Your task to perform on an android device: read, delete, or share a saved page in the chrome app Image 0: 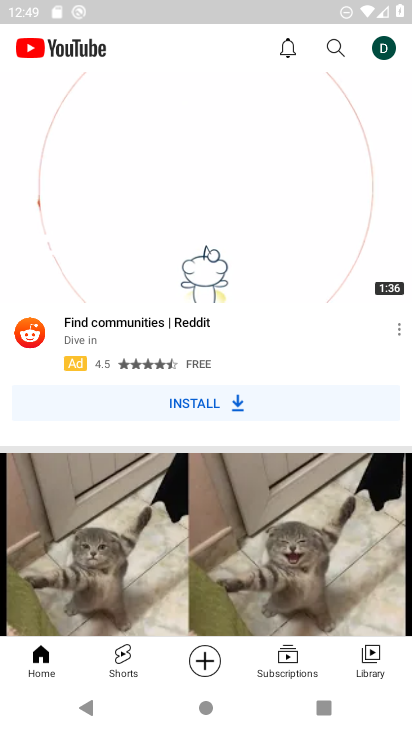
Step 0: press home button
Your task to perform on an android device: read, delete, or share a saved page in the chrome app Image 1: 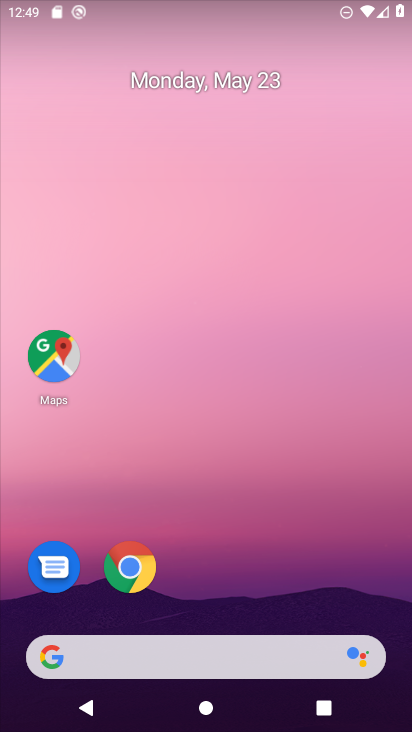
Step 1: click (134, 566)
Your task to perform on an android device: read, delete, or share a saved page in the chrome app Image 2: 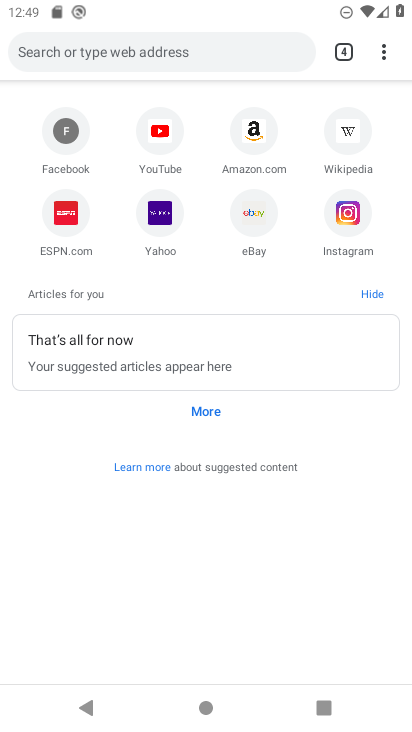
Step 2: click (388, 54)
Your task to perform on an android device: read, delete, or share a saved page in the chrome app Image 3: 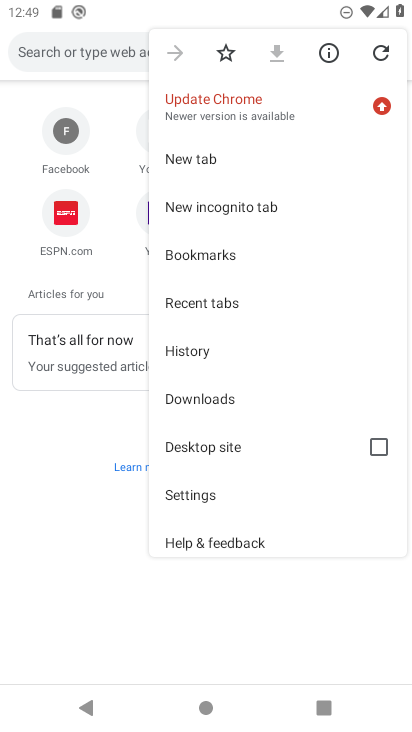
Step 3: click (225, 408)
Your task to perform on an android device: read, delete, or share a saved page in the chrome app Image 4: 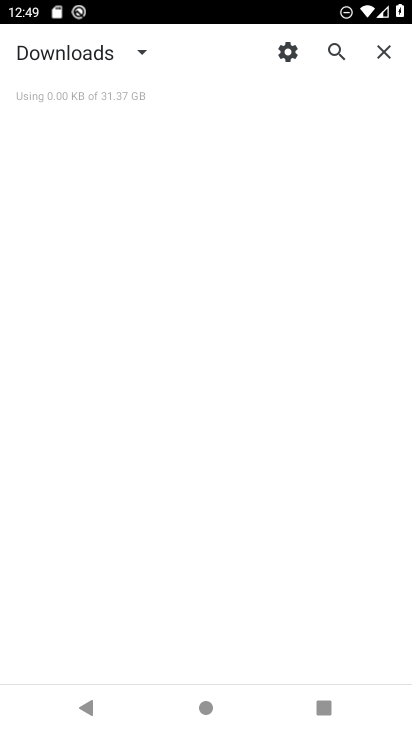
Step 4: task complete